Your task to perform on an android device: Check the weather Image 0: 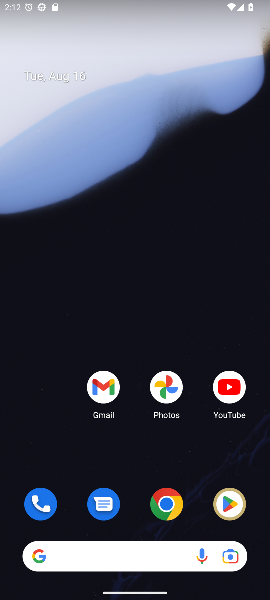
Step 0: drag from (134, 518) to (134, 146)
Your task to perform on an android device: Check the weather Image 1: 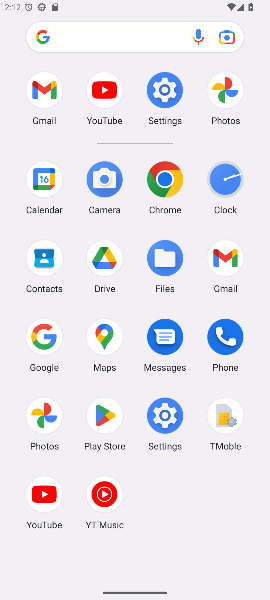
Step 1: click (46, 337)
Your task to perform on an android device: Check the weather Image 2: 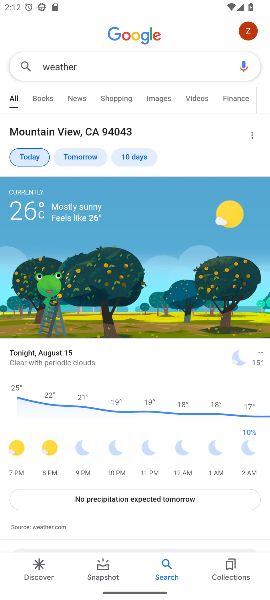
Step 2: task complete